Your task to perform on an android device: add a contact in the contacts app Image 0: 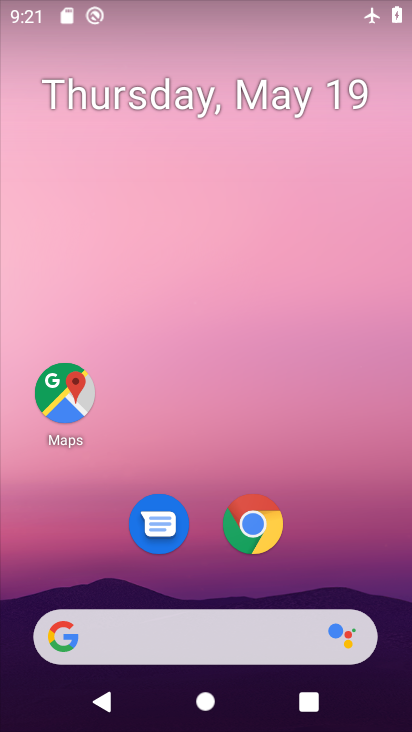
Step 0: drag from (305, 489) to (272, 29)
Your task to perform on an android device: add a contact in the contacts app Image 1: 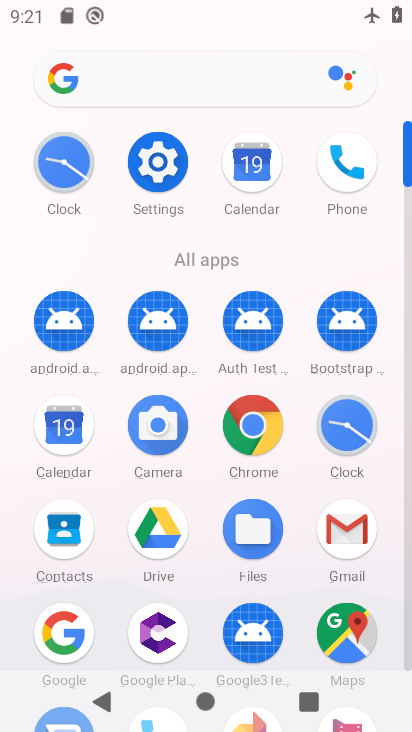
Step 1: click (50, 523)
Your task to perform on an android device: add a contact in the contacts app Image 2: 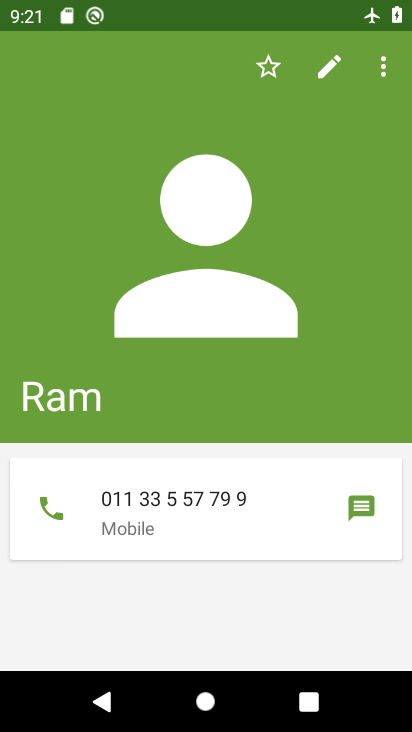
Step 2: press back button
Your task to perform on an android device: add a contact in the contacts app Image 3: 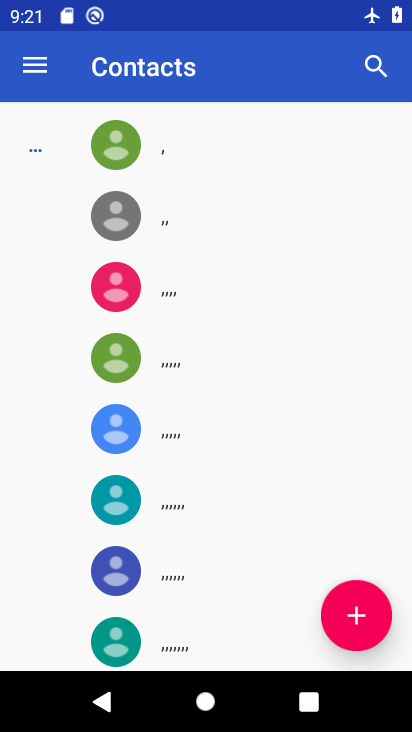
Step 3: click (366, 613)
Your task to perform on an android device: add a contact in the contacts app Image 4: 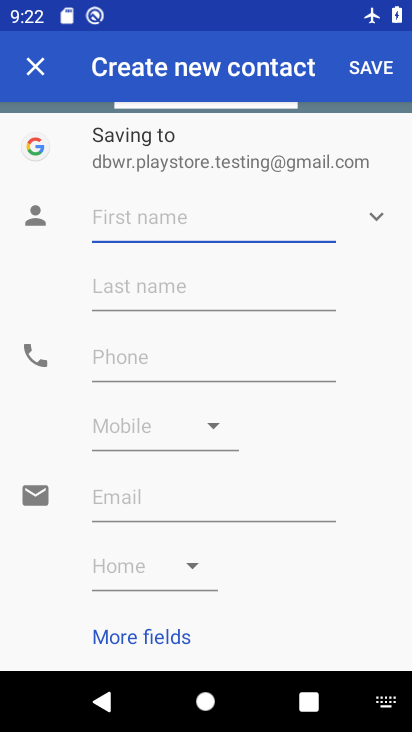
Step 4: type "Shatrughan"
Your task to perform on an android device: add a contact in the contacts app Image 5: 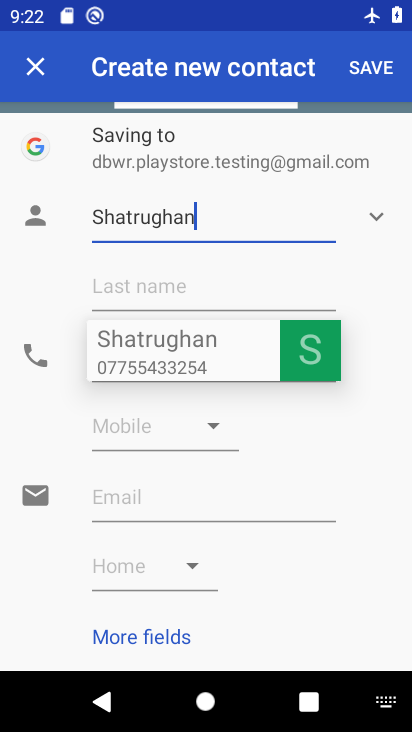
Step 5: click (222, 293)
Your task to perform on an android device: add a contact in the contacts app Image 6: 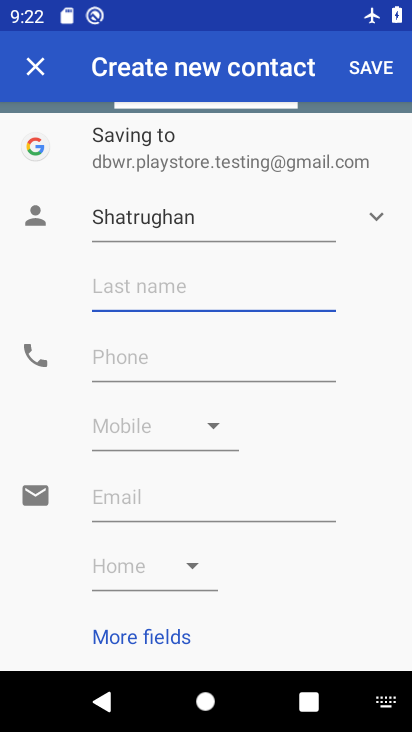
Step 6: click (185, 367)
Your task to perform on an android device: add a contact in the contacts app Image 7: 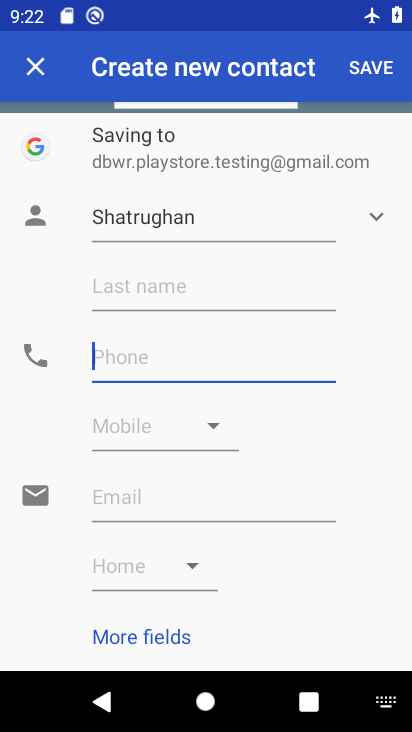
Step 7: type "01199775533"
Your task to perform on an android device: add a contact in the contacts app Image 8: 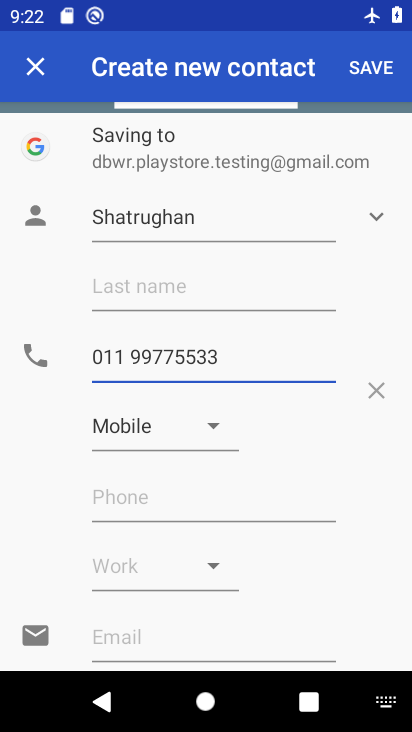
Step 8: click (375, 62)
Your task to perform on an android device: add a contact in the contacts app Image 9: 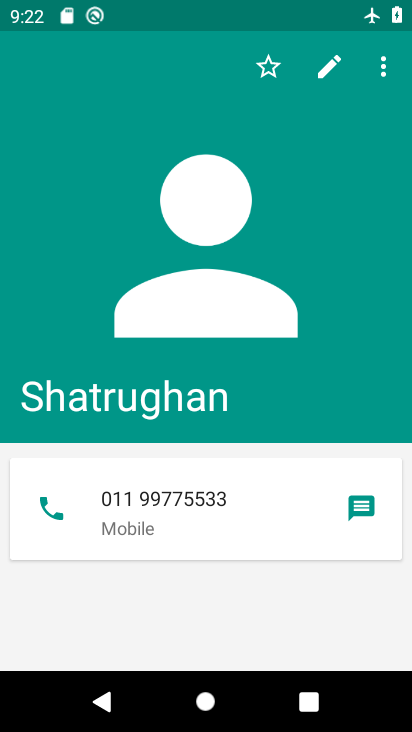
Step 9: task complete